Your task to perform on an android device: Open my contact list Image 0: 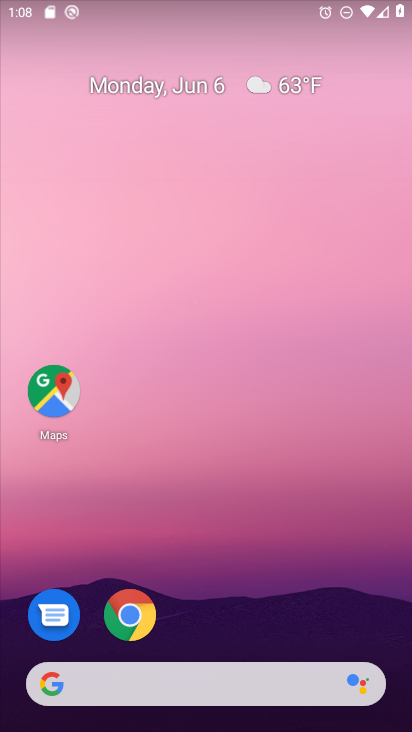
Step 0: click (300, 19)
Your task to perform on an android device: Open my contact list Image 1: 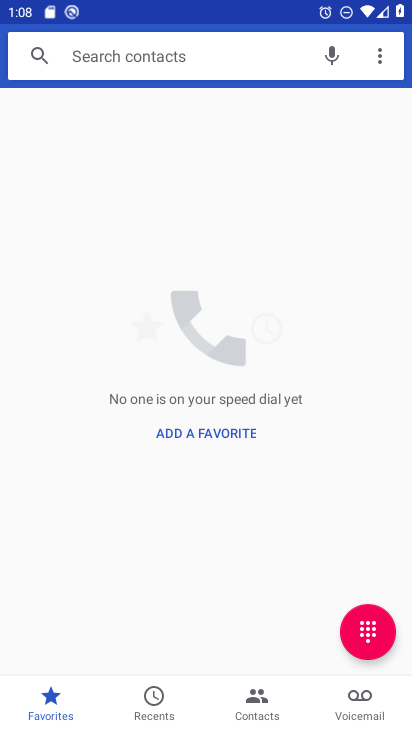
Step 1: press home button
Your task to perform on an android device: Open my contact list Image 2: 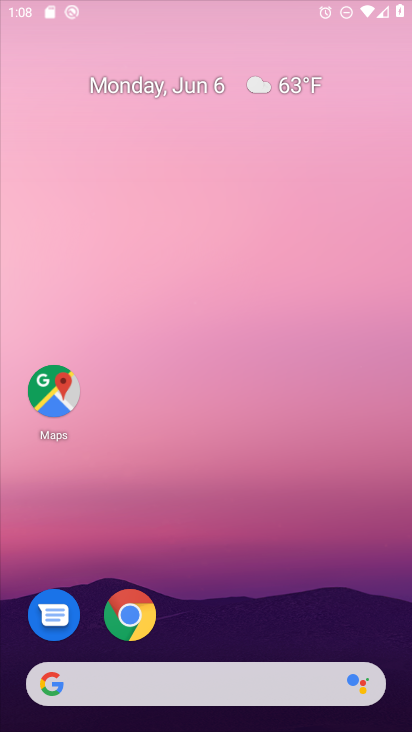
Step 2: drag from (221, 610) to (206, 12)
Your task to perform on an android device: Open my contact list Image 3: 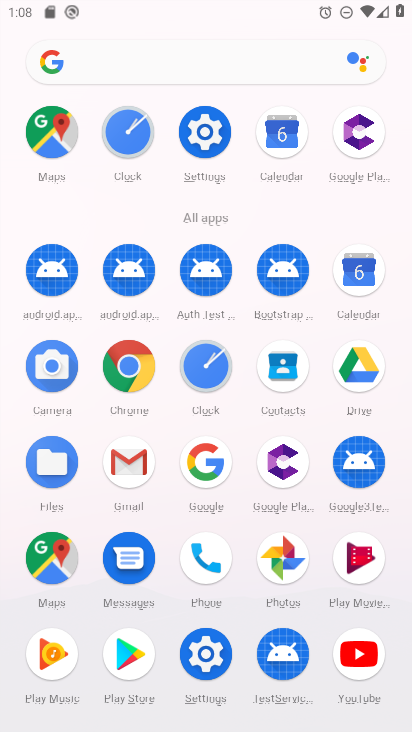
Step 3: click (281, 365)
Your task to perform on an android device: Open my contact list Image 4: 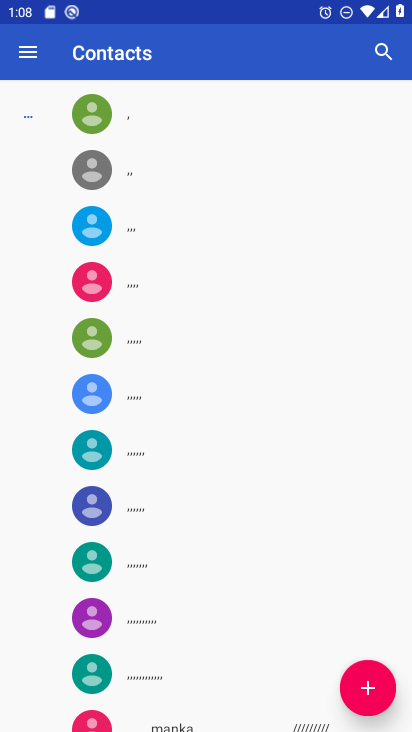
Step 4: task complete